Your task to perform on an android device: toggle improve location accuracy Image 0: 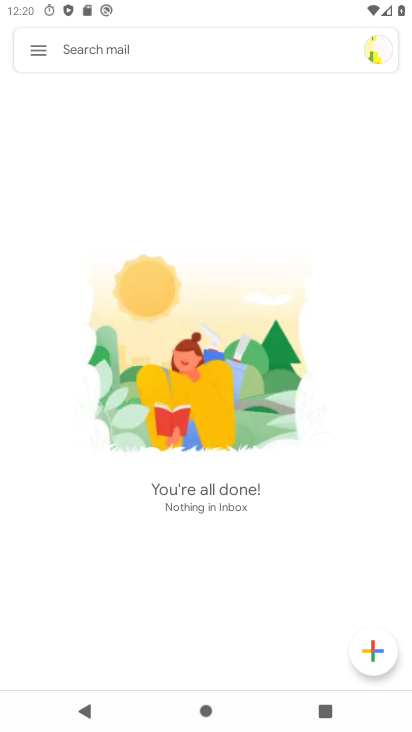
Step 0: press home button
Your task to perform on an android device: toggle improve location accuracy Image 1: 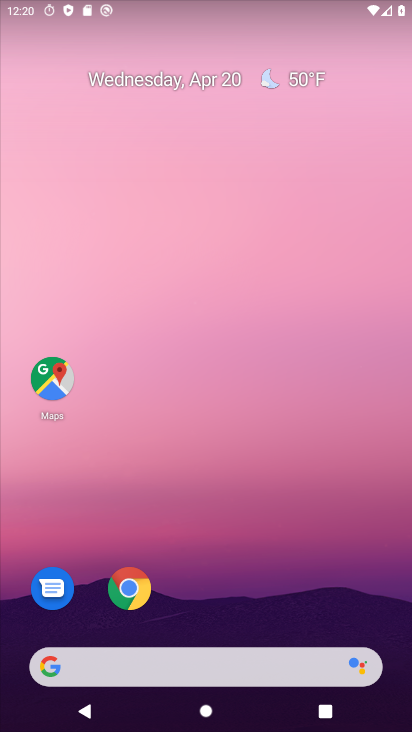
Step 1: drag from (221, 641) to (166, 56)
Your task to perform on an android device: toggle improve location accuracy Image 2: 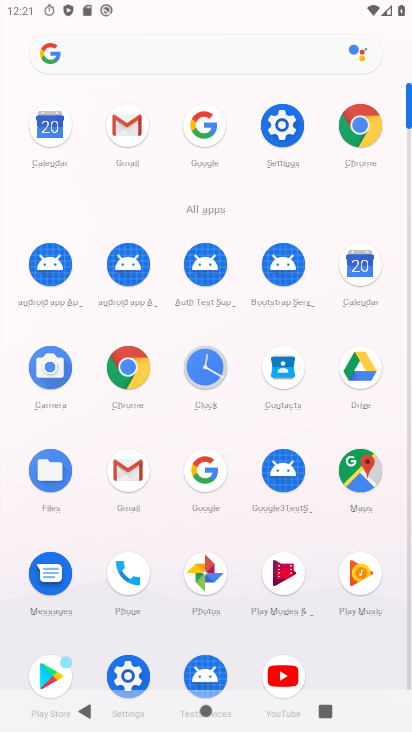
Step 2: click (268, 113)
Your task to perform on an android device: toggle improve location accuracy Image 3: 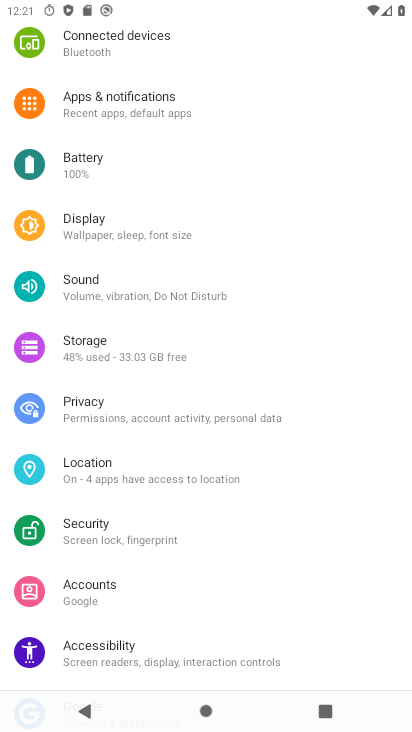
Step 3: click (103, 461)
Your task to perform on an android device: toggle improve location accuracy Image 4: 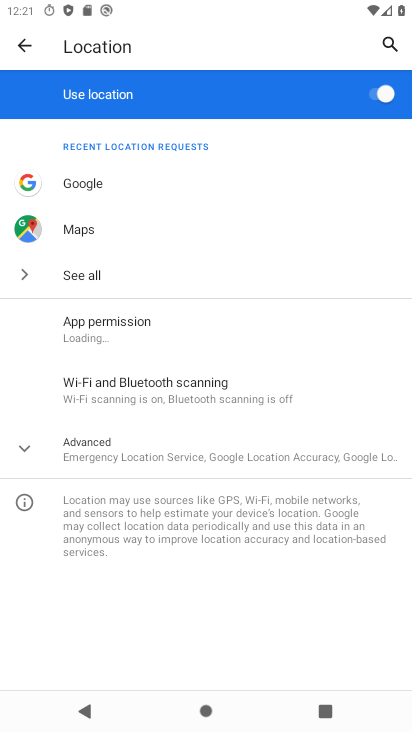
Step 4: click (111, 451)
Your task to perform on an android device: toggle improve location accuracy Image 5: 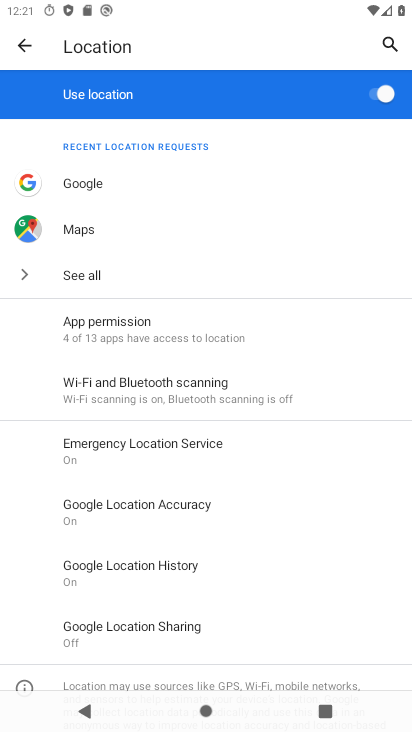
Step 5: click (78, 514)
Your task to perform on an android device: toggle improve location accuracy Image 6: 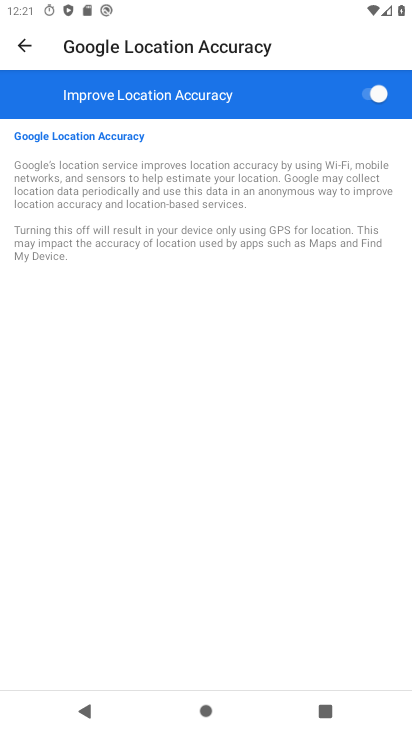
Step 6: click (365, 102)
Your task to perform on an android device: toggle improve location accuracy Image 7: 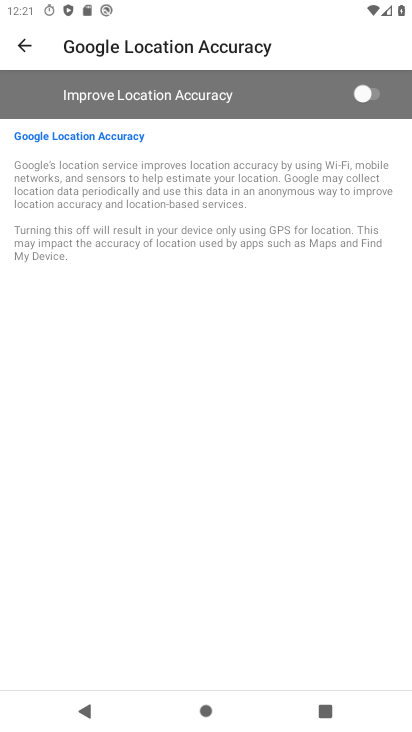
Step 7: task complete